Your task to perform on an android device: turn on bluetooth scan Image 0: 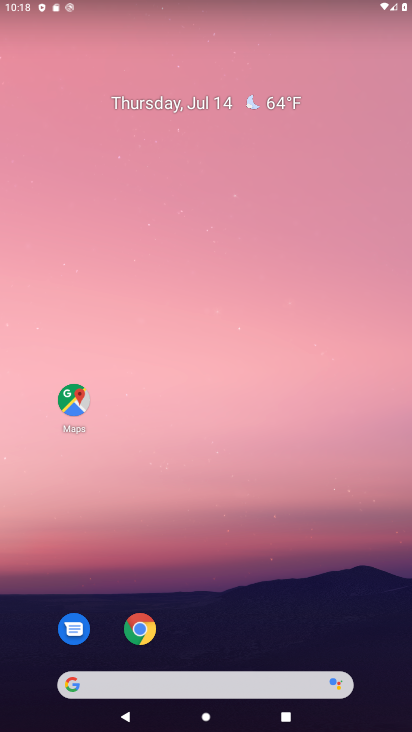
Step 0: drag from (166, 608) to (166, 197)
Your task to perform on an android device: turn on bluetooth scan Image 1: 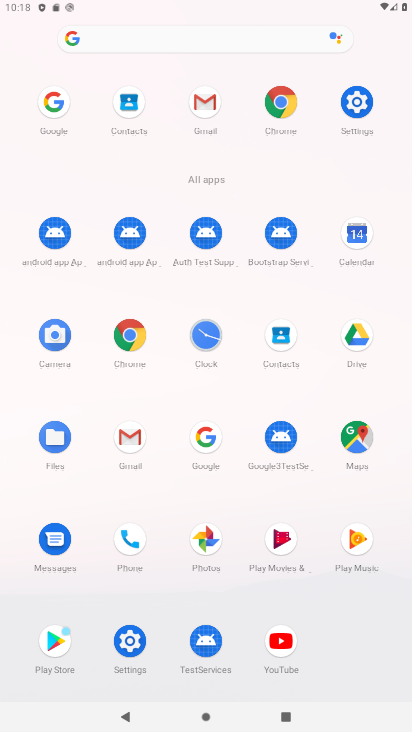
Step 1: click (351, 115)
Your task to perform on an android device: turn on bluetooth scan Image 2: 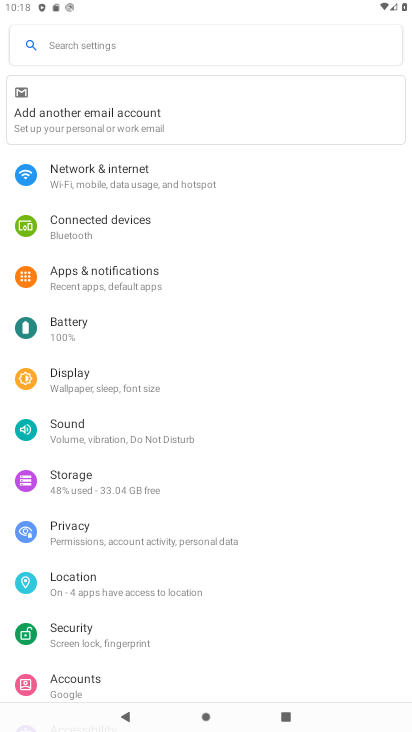
Step 2: click (84, 581)
Your task to perform on an android device: turn on bluetooth scan Image 3: 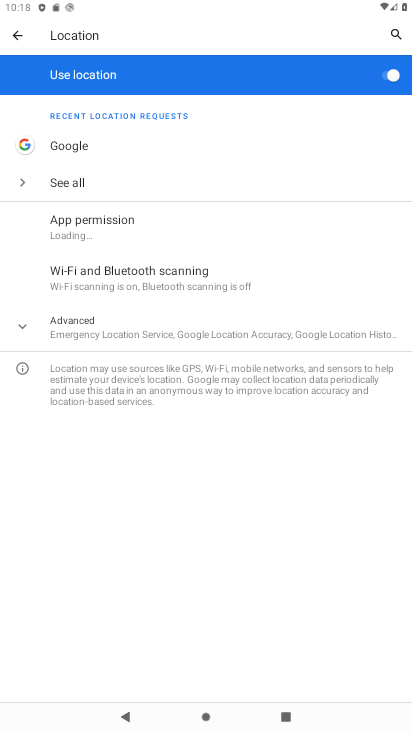
Step 3: click (59, 277)
Your task to perform on an android device: turn on bluetooth scan Image 4: 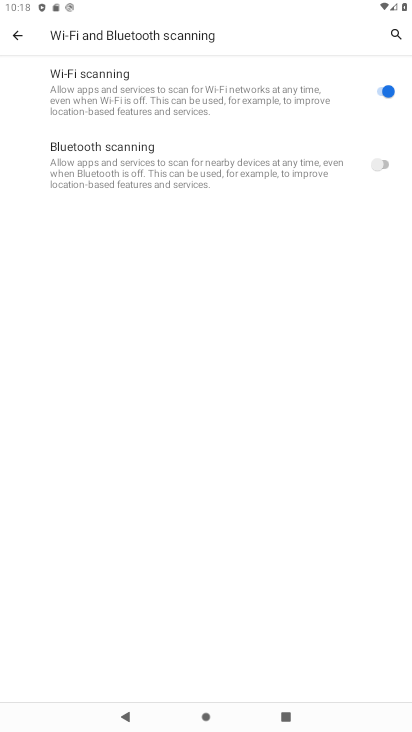
Step 4: click (384, 154)
Your task to perform on an android device: turn on bluetooth scan Image 5: 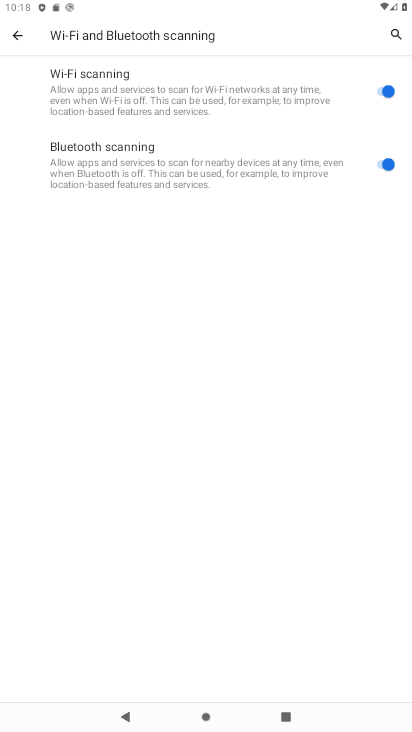
Step 5: task complete